Your task to perform on an android device: Search for vegetarian restaurants on Maps Image 0: 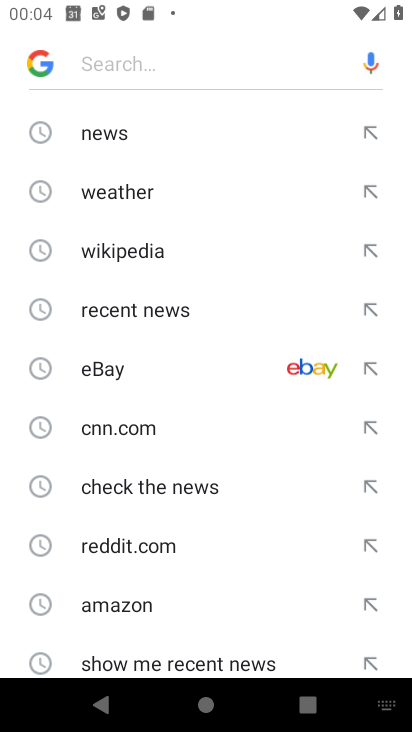
Step 0: press home button
Your task to perform on an android device: Search for vegetarian restaurants on Maps Image 1: 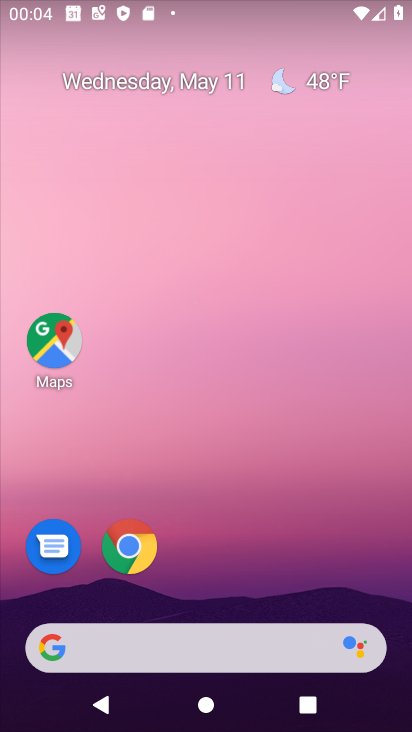
Step 1: click (55, 356)
Your task to perform on an android device: Search for vegetarian restaurants on Maps Image 2: 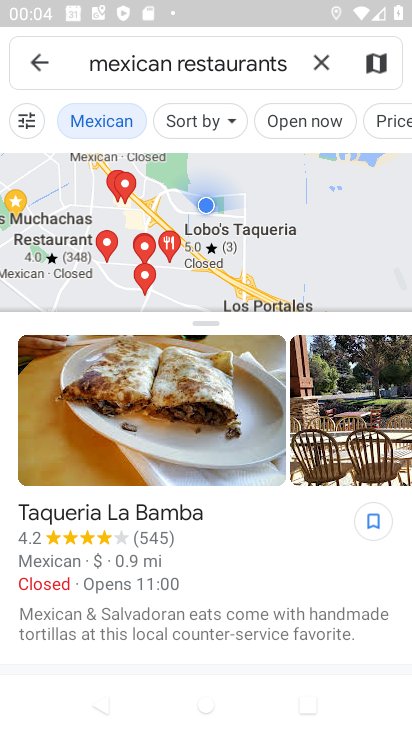
Step 2: click (322, 55)
Your task to perform on an android device: Search for vegetarian restaurants on Maps Image 3: 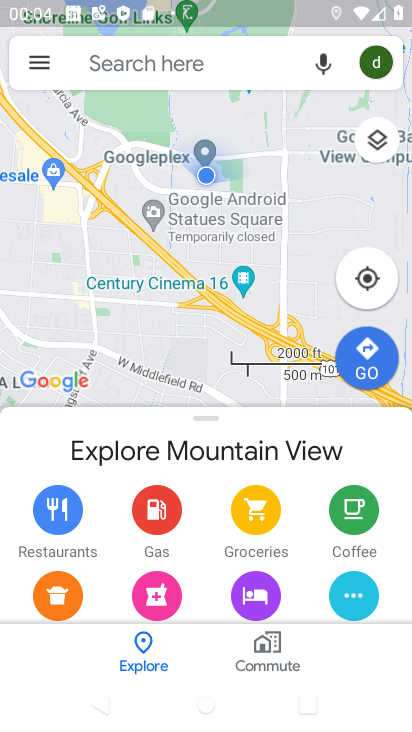
Step 3: click (144, 74)
Your task to perform on an android device: Search for vegetarian restaurants on Maps Image 4: 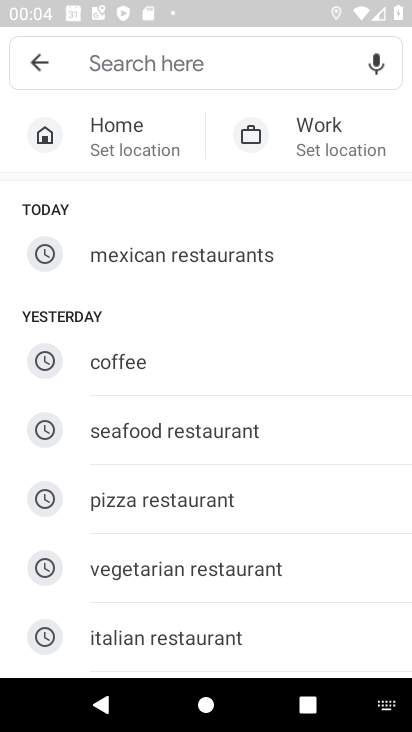
Step 4: type "vegetarian restaurants"
Your task to perform on an android device: Search for vegetarian restaurants on Maps Image 5: 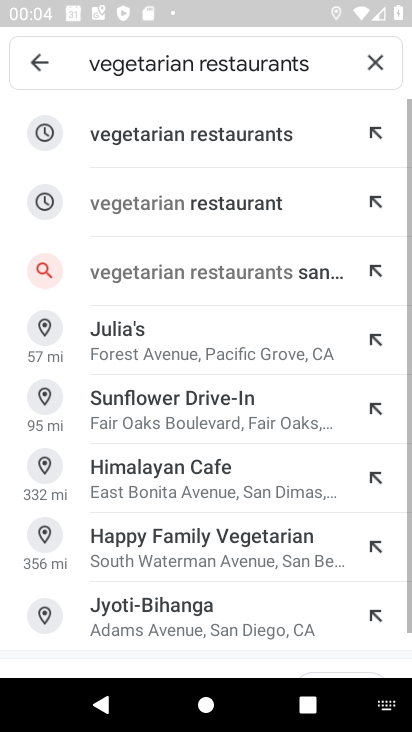
Step 5: click (212, 125)
Your task to perform on an android device: Search for vegetarian restaurants on Maps Image 6: 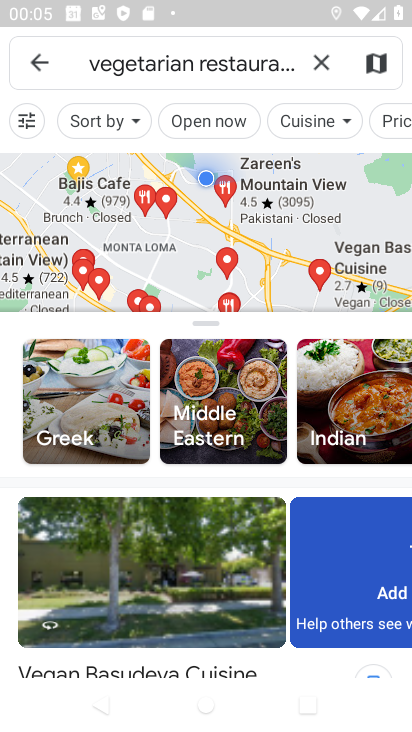
Step 6: task complete